Your task to perform on an android device: Open privacy settings Image 0: 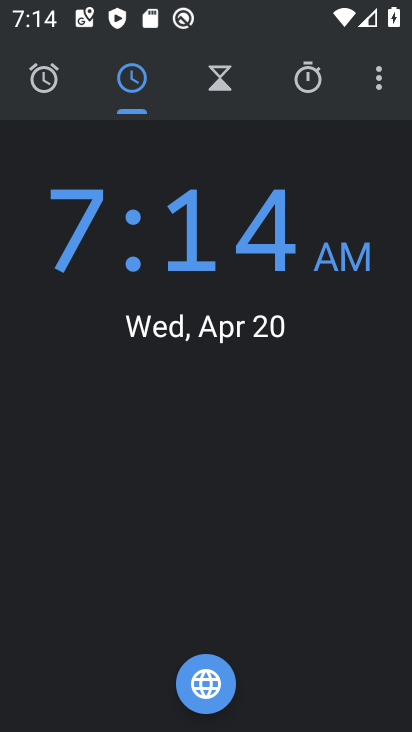
Step 0: press home button
Your task to perform on an android device: Open privacy settings Image 1: 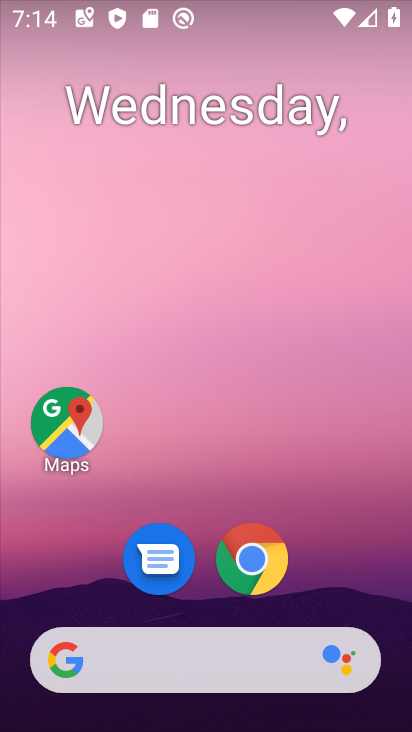
Step 1: drag from (262, 159) to (272, 0)
Your task to perform on an android device: Open privacy settings Image 2: 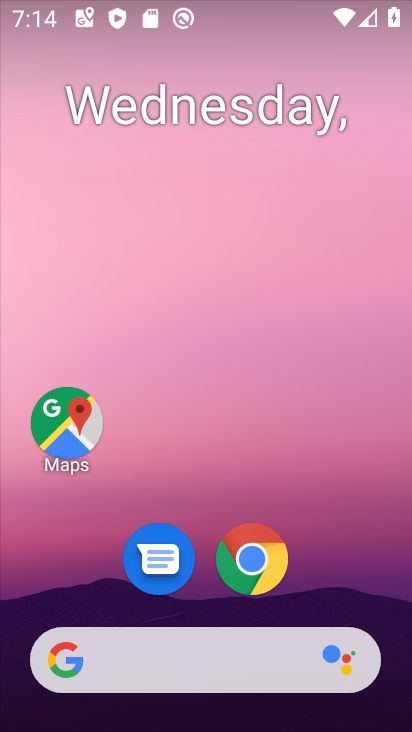
Step 2: drag from (345, 554) to (343, 227)
Your task to perform on an android device: Open privacy settings Image 3: 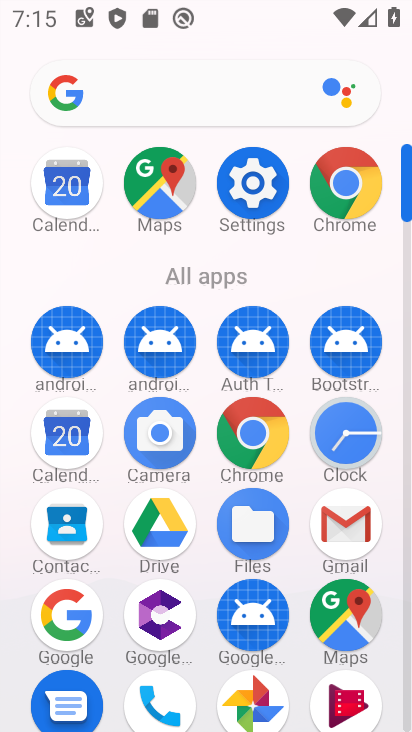
Step 3: click (356, 177)
Your task to perform on an android device: Open privacy settings Image 4: 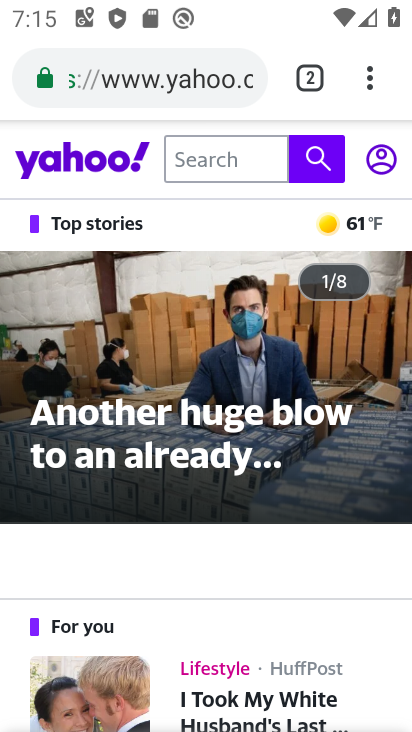
Step 4: click (322, 226)
Your task to perform on an android device: Open privacy settings Image 5: 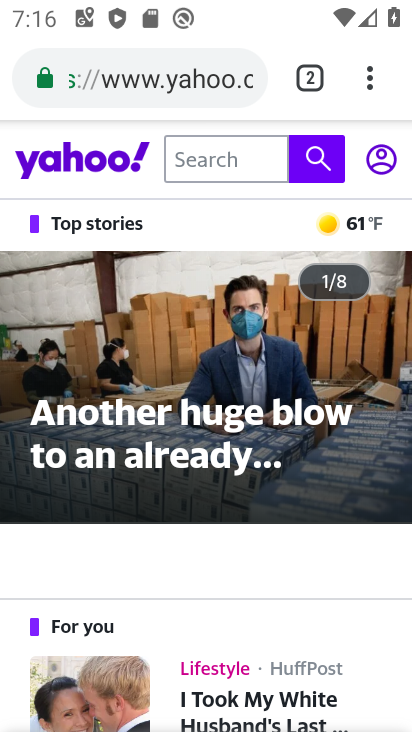
Step 5: drag from (380, 76) to (310, 5)
Your task to perform on an android device: Open privacy settings Image 6: 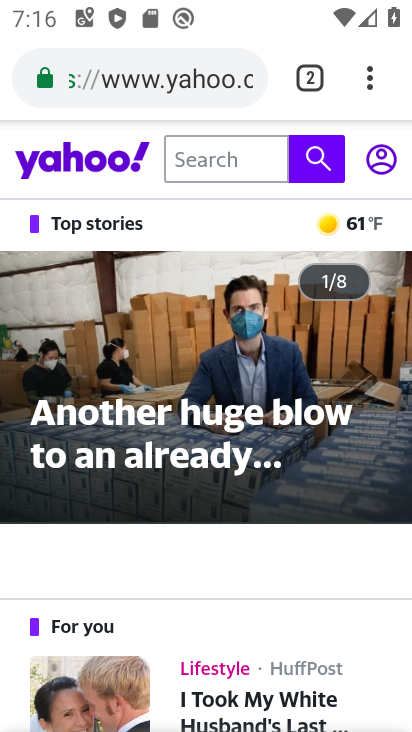
Step 6: drag from (366, 73) to (182, 613)
Your task to perform on an android device: Open privacy settings Image 7: 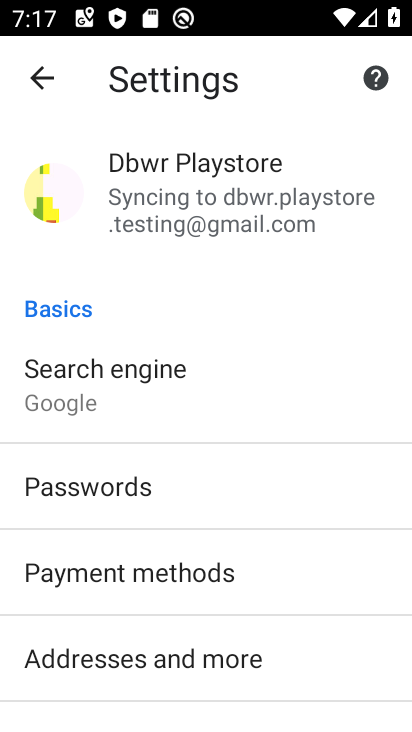
Step 7: drag from (165, 580) to (129, 214)
Your task to perform on an android device: Open privacy settings Image 8: 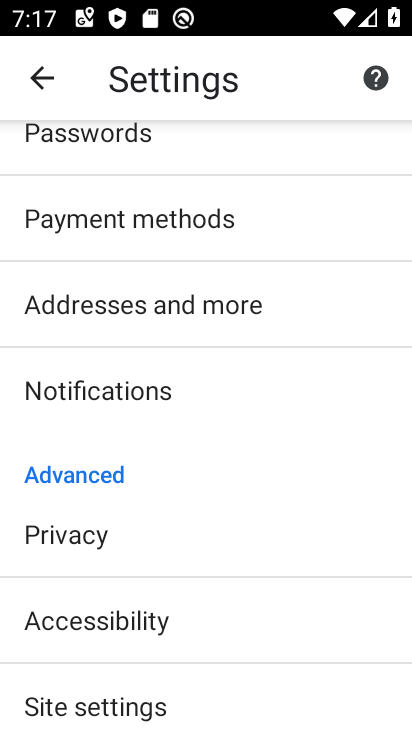
Step 8: click (130, 541)
Your task to perform on an android device: Open privacy settings Image 9: 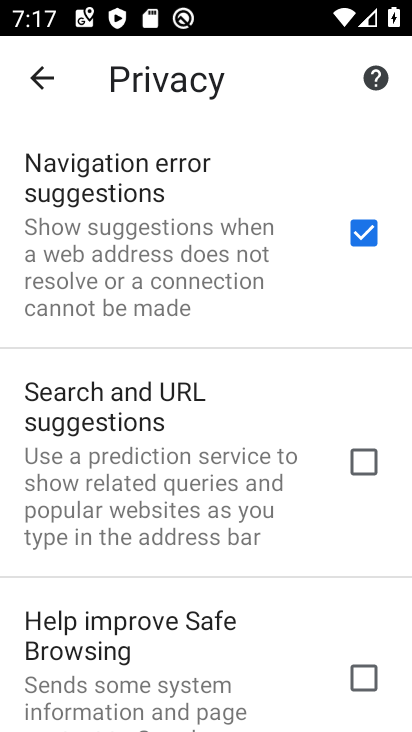
Step 9: task complete